Your task to perform on an android device: change keyboard looks Image 0: 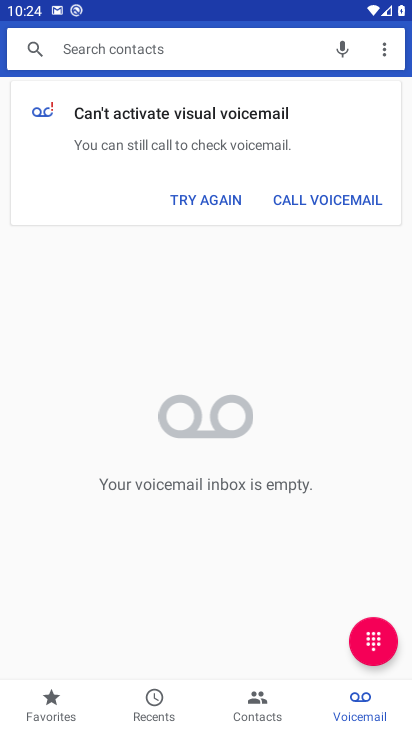
Step 0: press home button
Your task to perform on an android device: change keyboard looks Image 1: 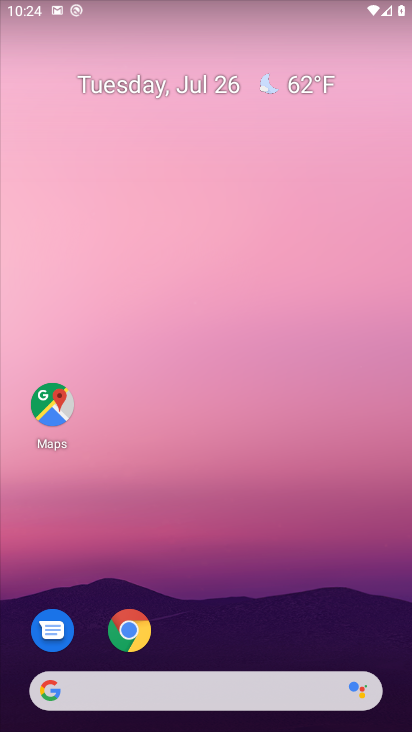
Step 1: drag from (225, 648) to (245, 70)
Your task to perform on an android device: change keyboard looks Image 2: 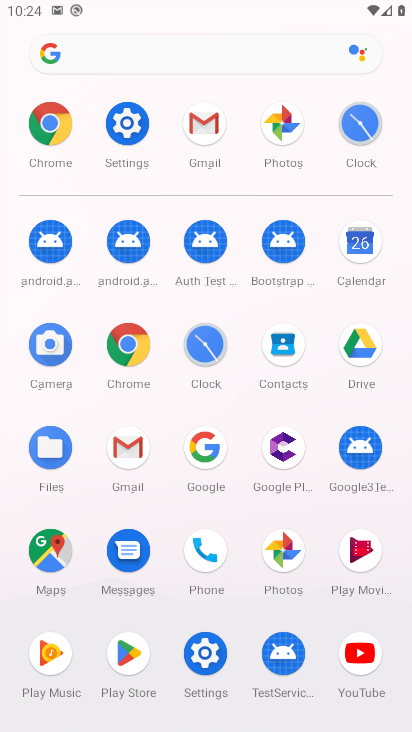
Step 2: click (126, 115)
Your task to perform on an android device: change keyboard looks Image 3: 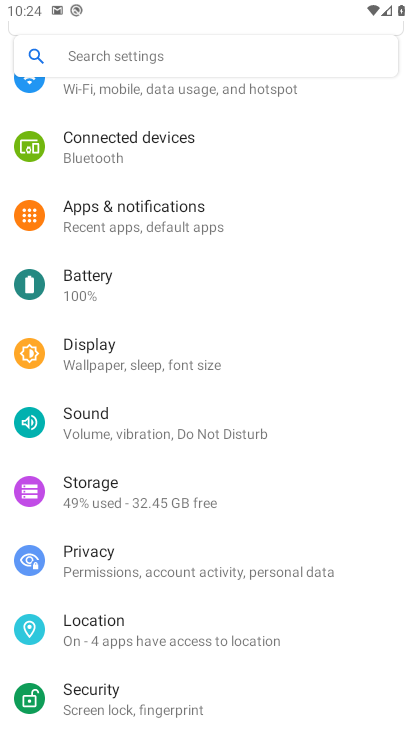
Step 3: drag from (146, 686) to (181, 243)
Your task to perform on an android device: change keyboard looks Image 4: 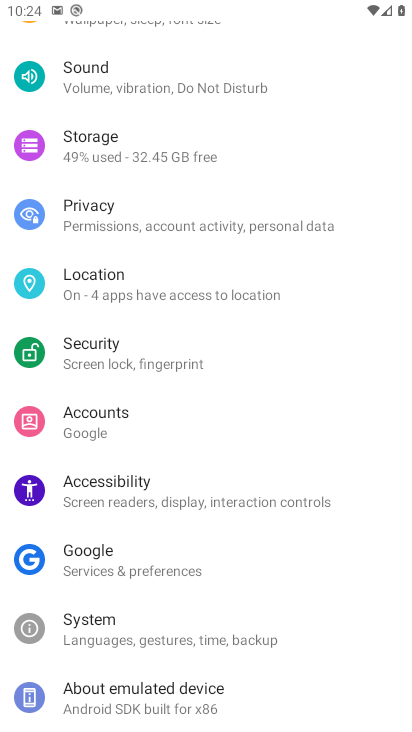
Step 4: click (132, 624)
Your task to perform on an android device: change keyboard looks Image 5: 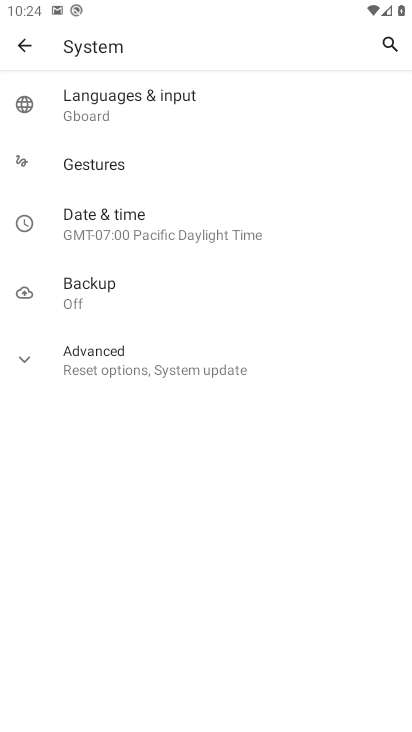
Step 5: click (131, 100)
Your task to perform on an android device: change keyboard looks Image 6: 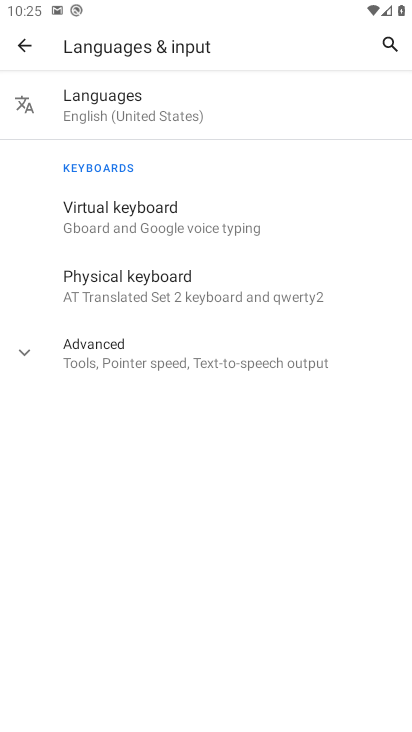
Step 6: click (105, 218)
Your task to perform on an android device: change keyboard looks Image 7: 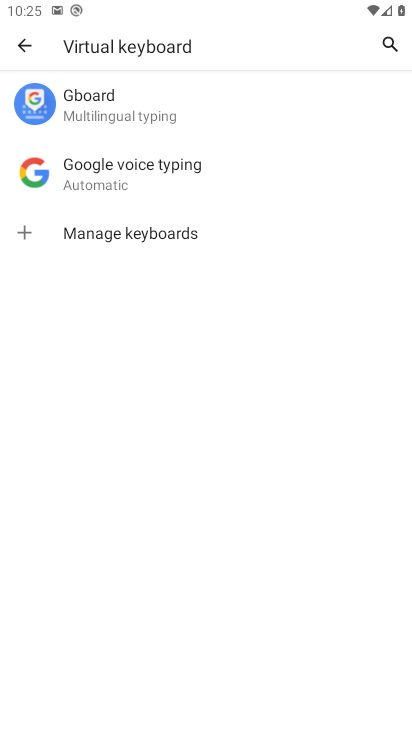
Step 7: click (116, 100)
Your task to perform on an android device: change keyboard looks Image 8: 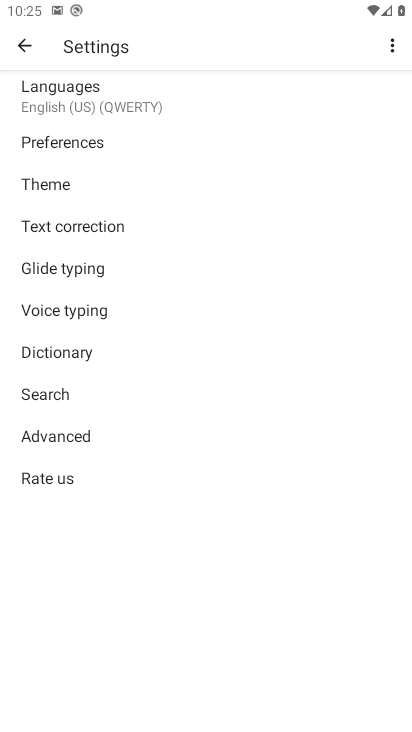
Step 8: click (93, 173)
Your task to perform on an android device: change keyboard looks Image 9: 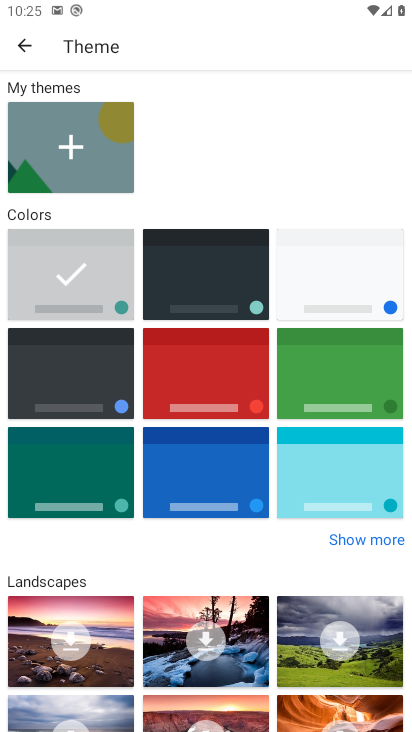
Step 9: click (202, 381)
Your task to perform on an android device: change keyboard looks Image 10: 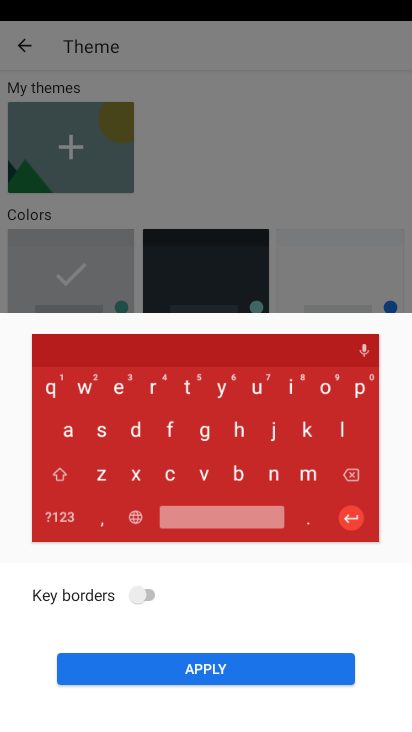
Step 10: click (202, 659)
Your task to perform on an android device: change keyboard looks Image 11: 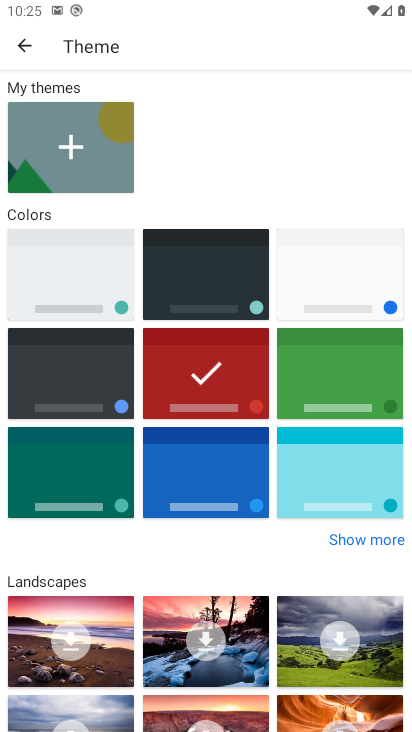
Step 11: task complete